Your task to perform on an android device: Open my contact list Image 0: 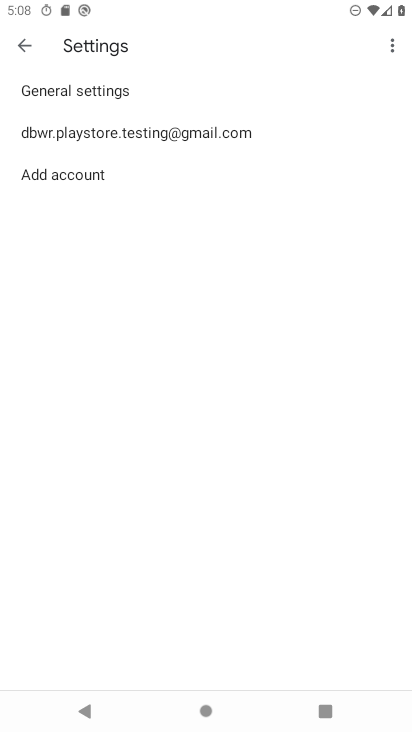
Step 0: press home button
Your task to perform on an android device: Open my contact list Image 1: 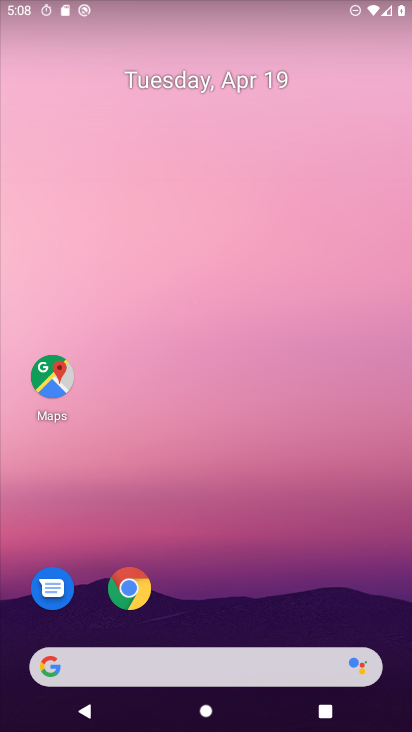
Step 1: drag from (232, 587) to (194, 139)
Your task to perform on an android device: Open my contact list Image 2: 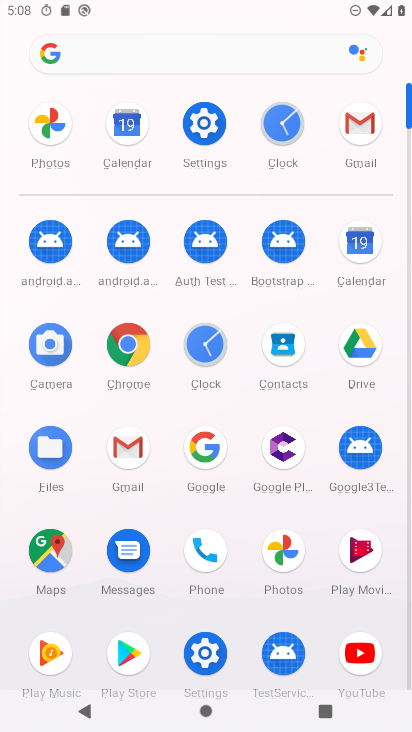
Step 2: click (282, 345)
Your task to perform on an android device: Open my contact list Image 3: 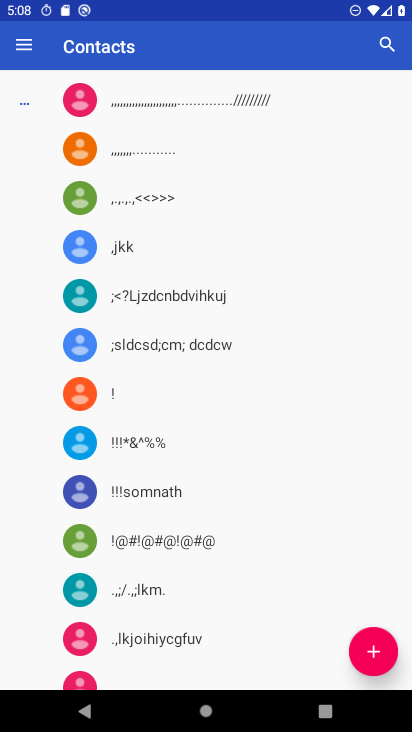
Step 3: task complete